Your task to perform on an android device: turn on location history Image 0: 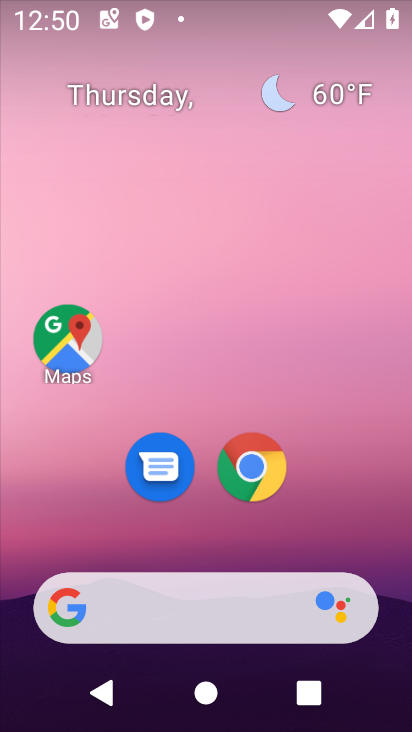
Step 0: drag from (209, 537) to (255, 255)
Your task to perform on an android device: turn on location history Image 1: 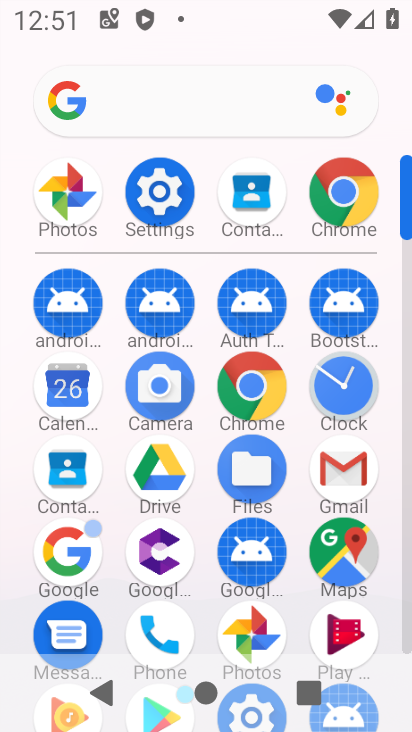
Step 1: click (171, 199)
Your task to perform on an android device: turn on location history Image 2: 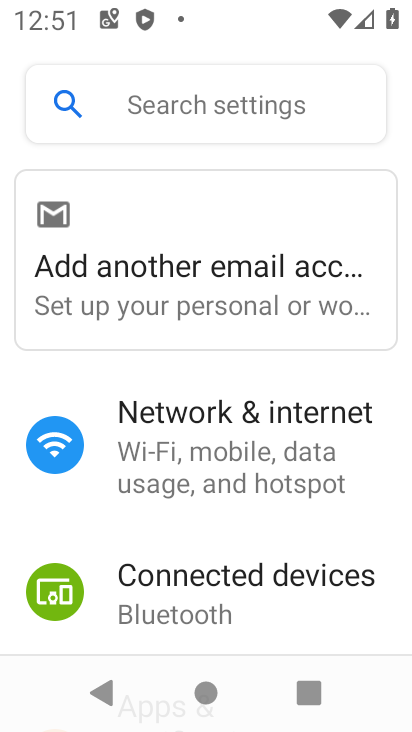
Step 2: drag from (235, 579) to (251, 311)
Your task to perform on an android device: turn on location history Image 3: 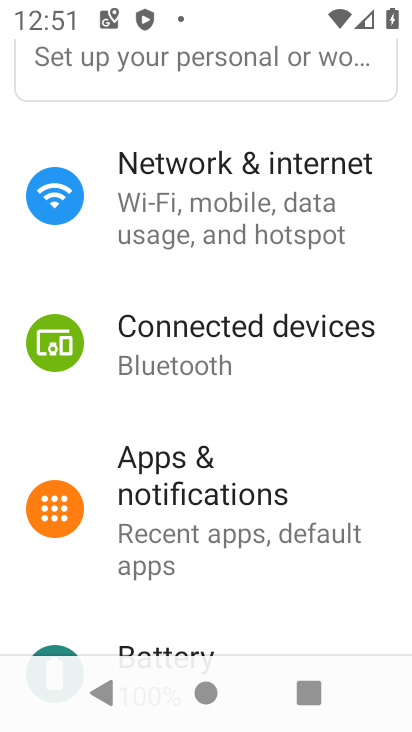
Step 3: drag from (181, 551) to (191, 367)
Your task to perform on an android device: turn on location history Image 4: 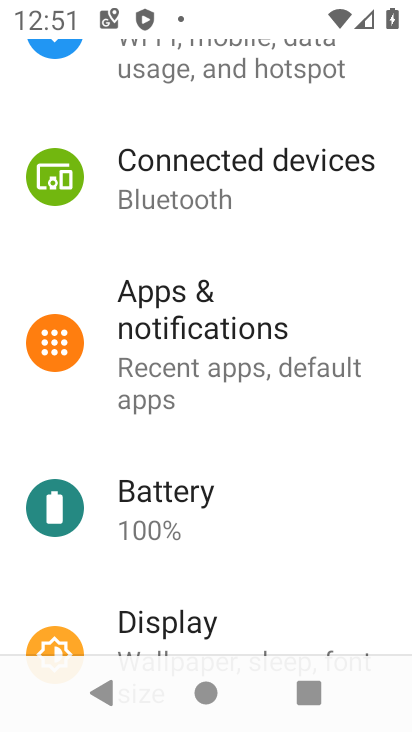
Step 4: drag from (164, 584) to (211, 390)
Your task to perform on an android device: turn on location history Image 5: 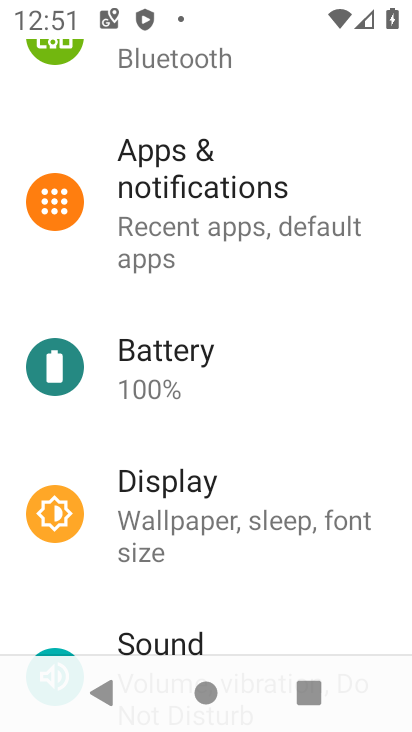
Step 5: drag from (224, 544) to (253, 302)
Your task to perform on an android device: turn on location history Image 6: 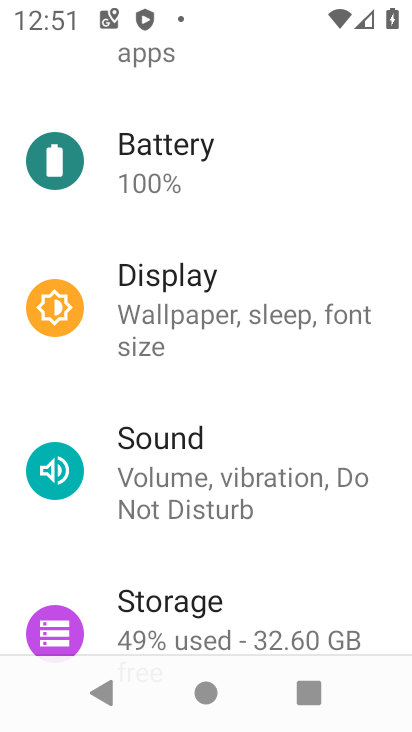
Step 6: drag from (232, 555) to (278, 335)
Your task to perform on an android device: turn on location history Image 7: 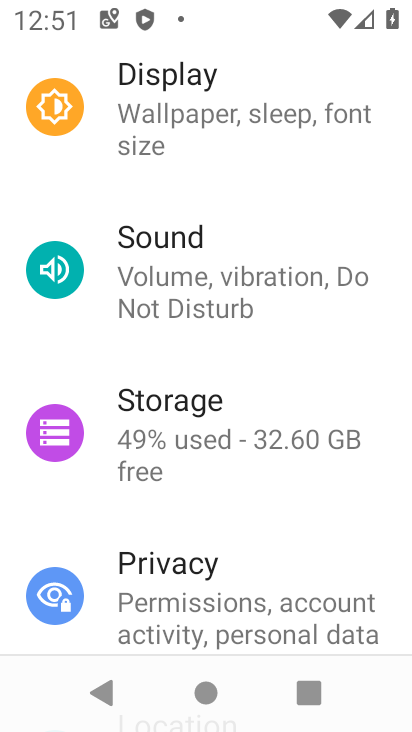
Step 7: drag from (246, 582) to (269, 356)
Your task to perform on an android device: turn on location history Image 8: 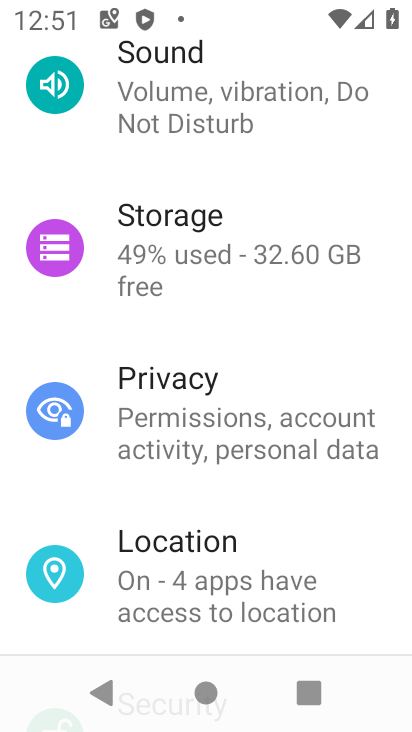
Step 8: click (180, 574)
Your task to perform on an android device: turn on location history Image 9: 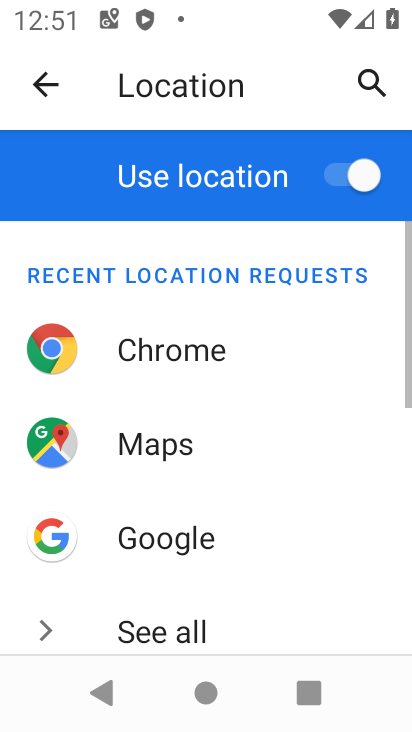
Step 9: drag from (204, 573) to (242, 328)
Your task to perform on an android device: turn on location history Image 10: 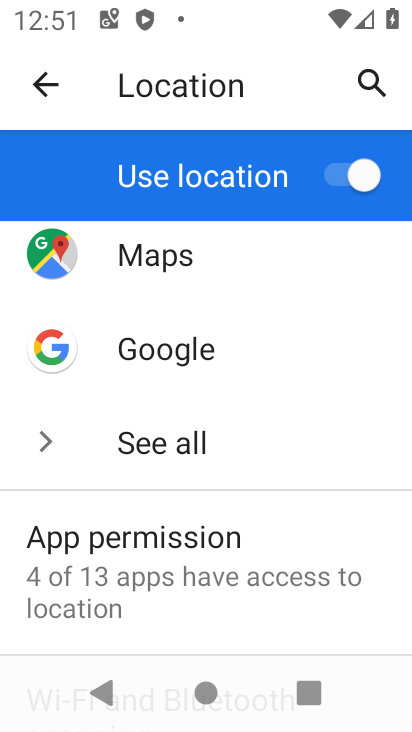
Step 10: drag from (178, 560) to (228, 315)
Your task to perform on an android device: turn on location history Image 11: 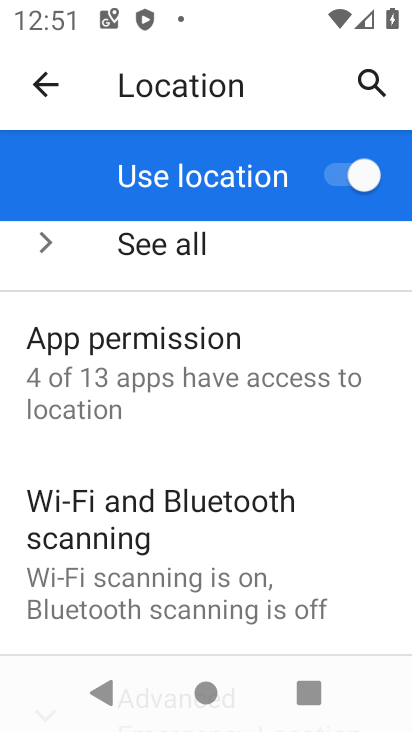
Step 11: drag from (179, 580) to (216, 368)
Your task to perform on an android device: turn on location history Image 12: 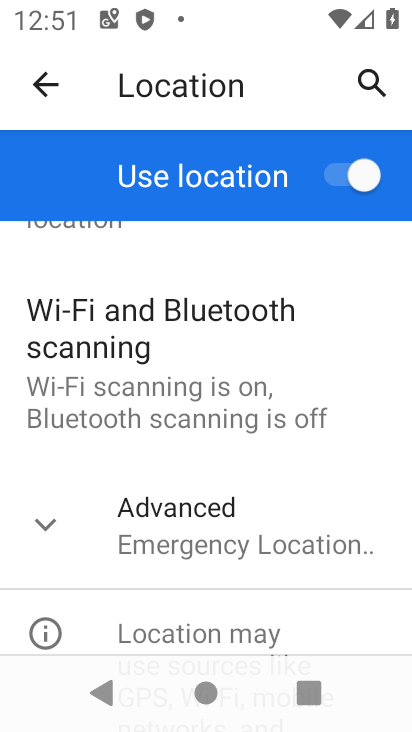
Step 12: drag from (186, 582) to (231, 437)
Your task to perform on an android device: turn on location history Image 13: 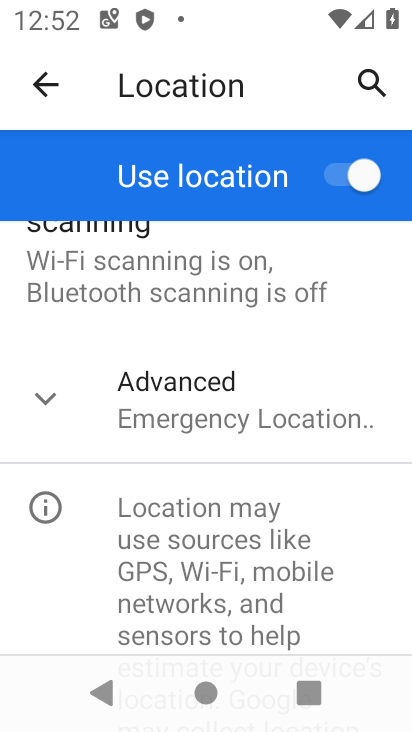
Step 13: click (200, 464)
Your task to perform on an android device: turn on location history Image 14: 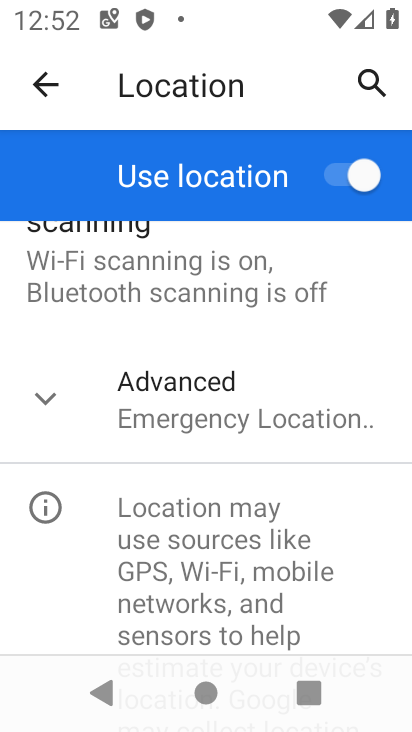
Step 14: click (178, 401)
Your task to perform on an android device: turn on location history Image 15: 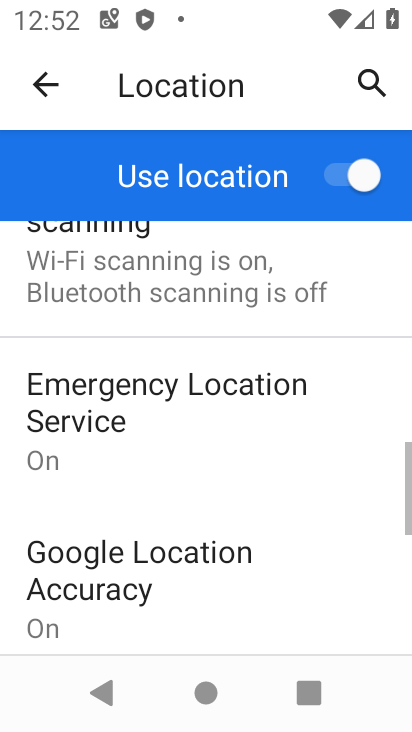
Step 15: drag from (178, 584) to (190, 498)
Your task to perform on an android device: turn on location history Image 16: 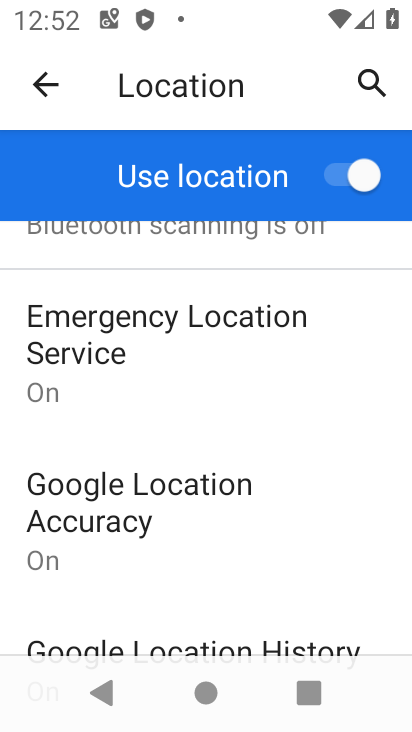
Step 16: drag from (169, 554) to (203, 401)
Your task to perform on an android device: turn on location history Image 17: 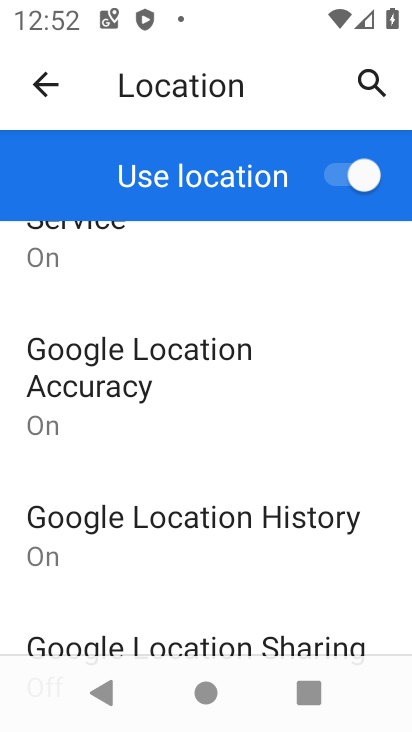
Step 17: click (177, 534)
Your task to perform on an android device: turn on location history Image 18: 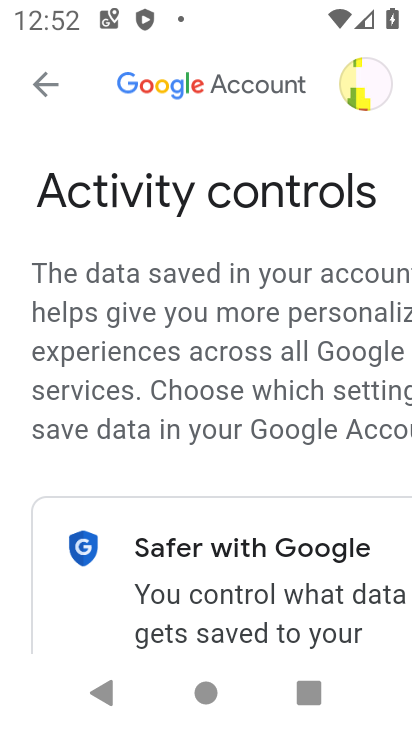
Step 18: drag from (232, 672) to (319, 315)
Your task to perform on an android device: turn on location history Image 19: 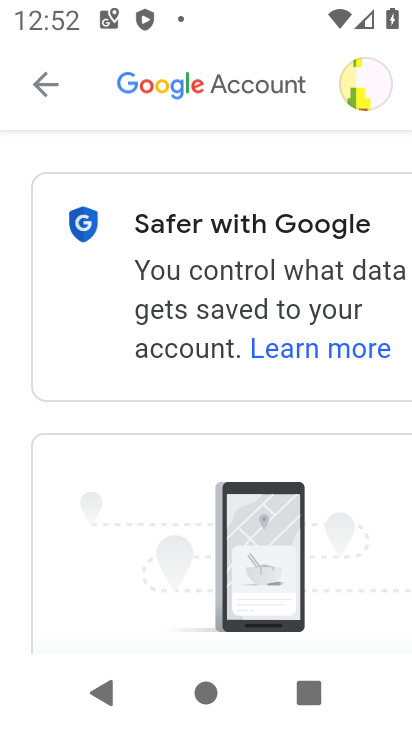
Step 19: drag from (252, 505) to (270, 155)
Your task to perform on an android device: turn on location history Image 20: 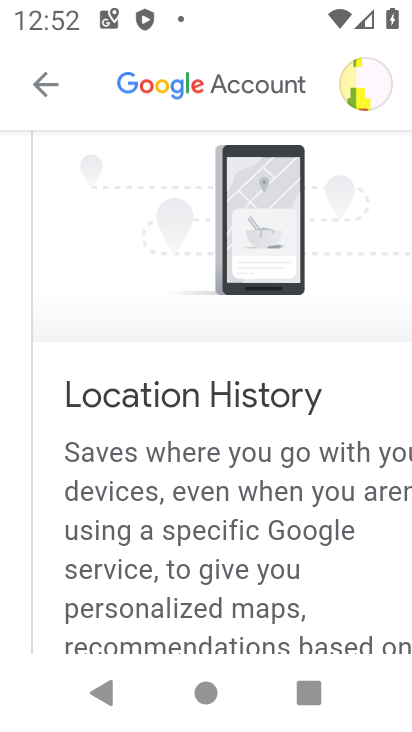
Step 20: drag from (170, 540) to (237, 147)
Your task to perform on an android device: turn on location history Image 21: 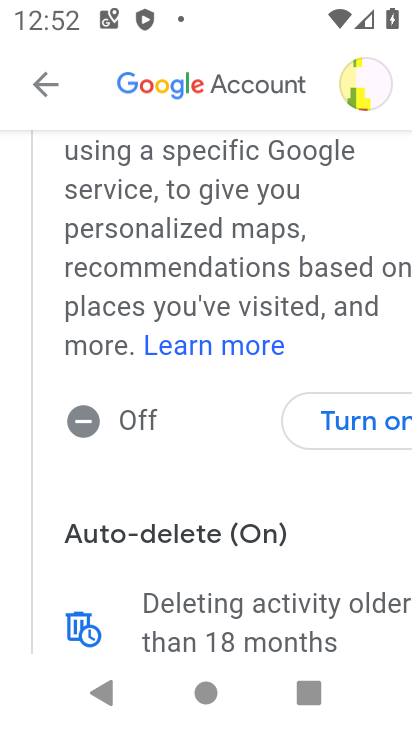
Step 21: click (329, 421)
Your task to perform on an android device: turn on location history Image 22: 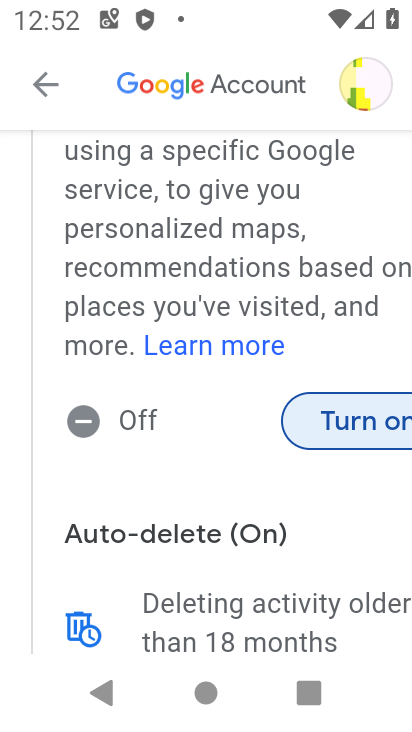
Step 22: click (337, 426)
Your task to perform on an android device: turn on location history Image 23: 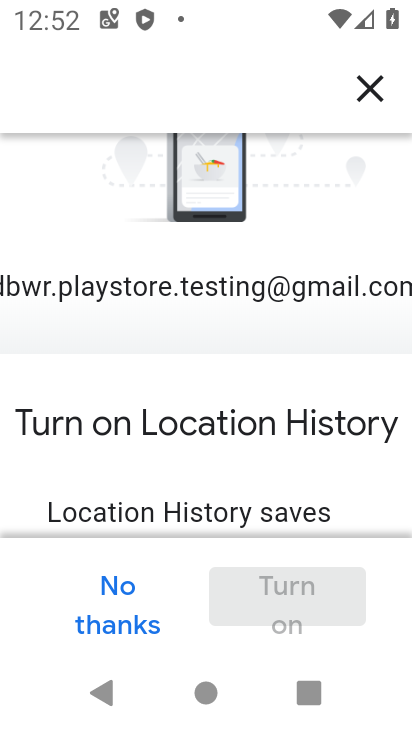
Step 23: drag from (262, 490) to (282, 235)
Your task to perform on an android device: turn on location history Image 24: 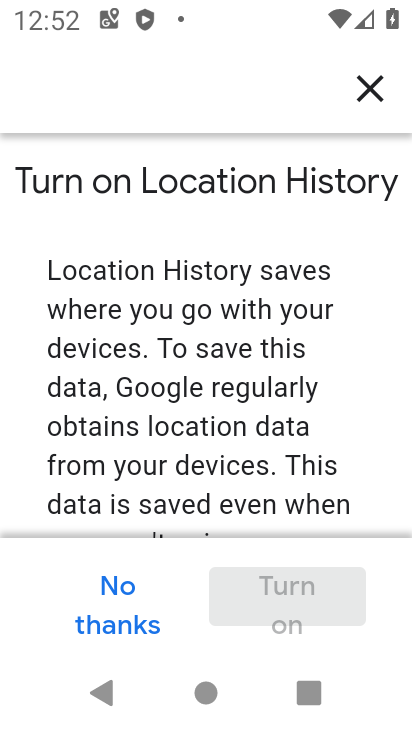
Step 24: drag from (235, 518) to (269, 222)
Your task to perform on an android device: turn on location history Image 25: 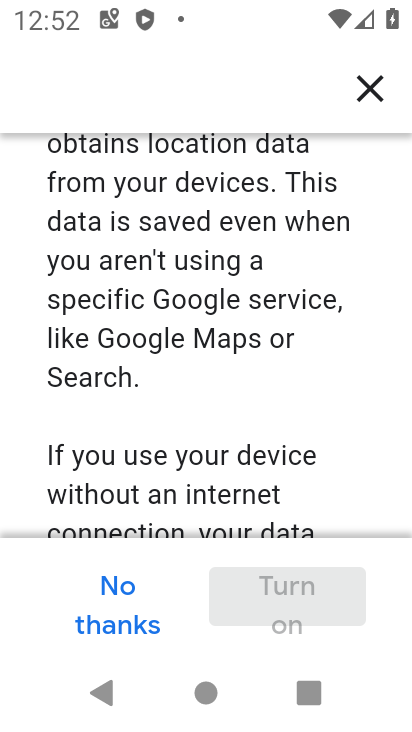
Step 25: drag from (269, 504) to (287, 199)
Your task to perform on an android device: turn on location history Image 26: 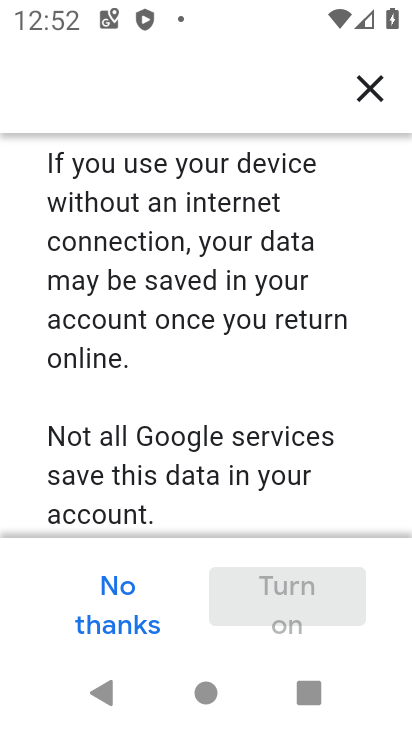
Step 26: drag from (222, 506) to (268, 185)
Your task to perform on an android device: turn on location history Image 27: 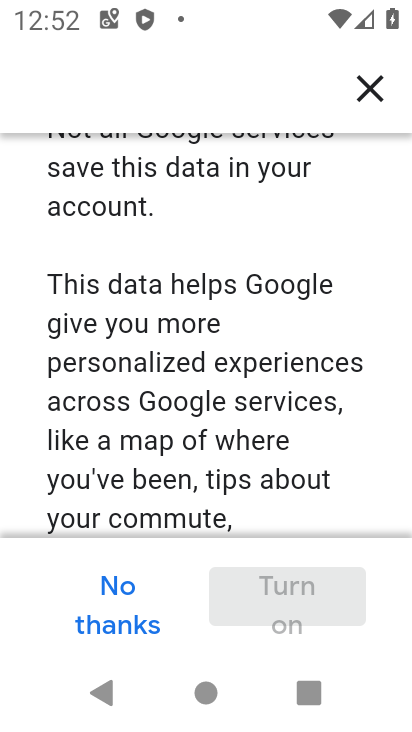
Step 27: drag from (164, 473) to (247, 121)
Your task to perform on an android device: turn on location history Image 28: 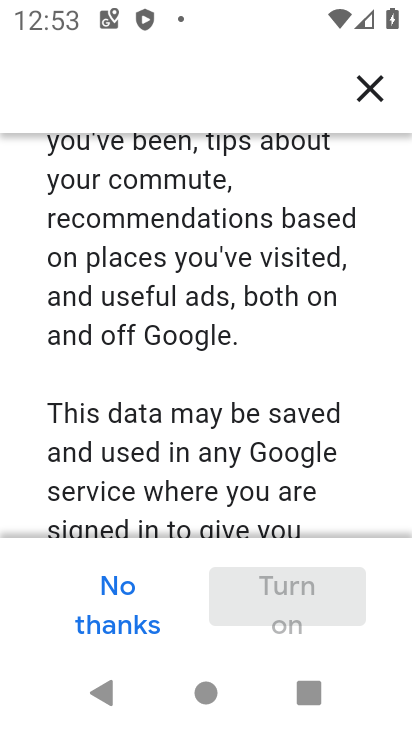
Step 28: drag from (201, 499) to (257, 130)
Your task to perform on an android device: turn on location history Image 29: 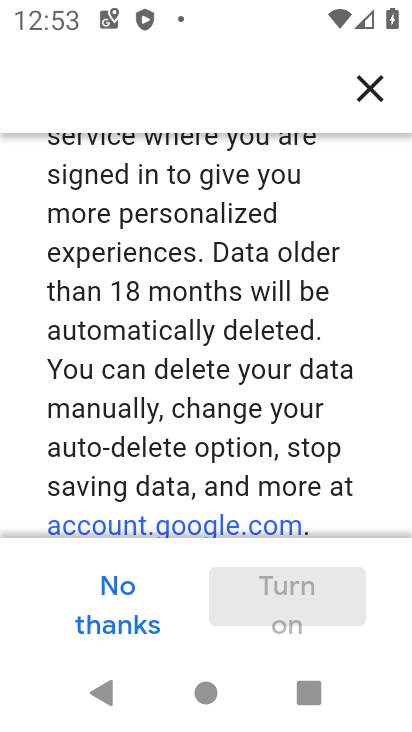
Step 29: drag from (207, 524) to (268, 133)
Your task to perform on an android device: turn on location history Image 30: 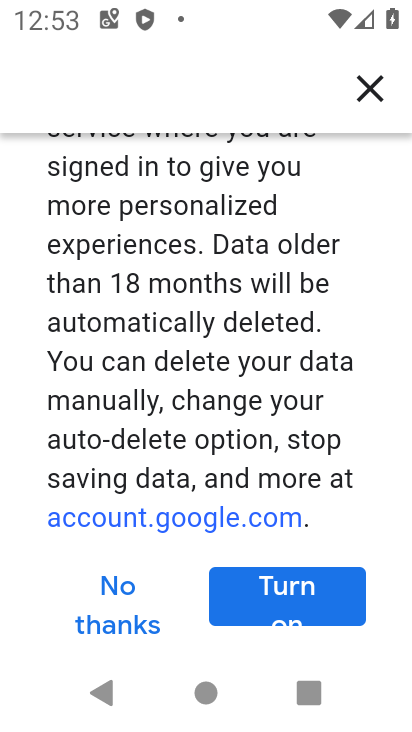
Step 30: click (303, 611)
Your task to perform on an android device: turn on location history Image 31: 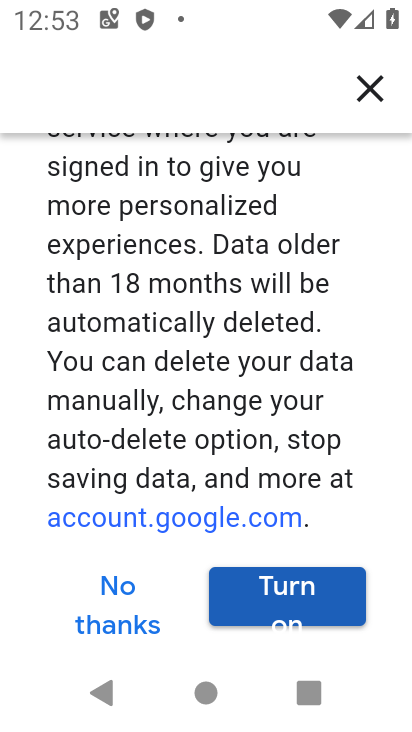
Step 31: click (301, 609)
Your task to perform on an android device: turn on location history Image 32: 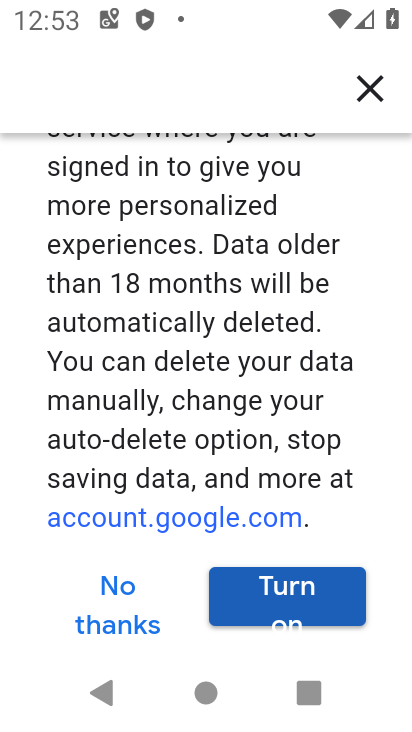
Step 32: click (295, 607)
Your task to perform on an android device: turn on location history Image 33: 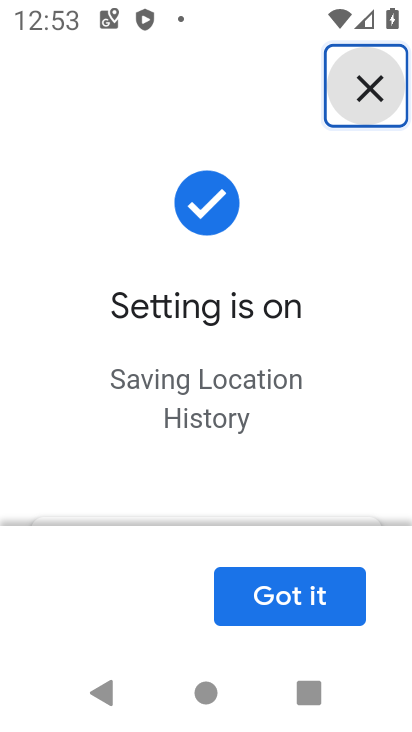
Step 33: click (271, 599)
Your task to perform on an android device: turn on location history Image 34: 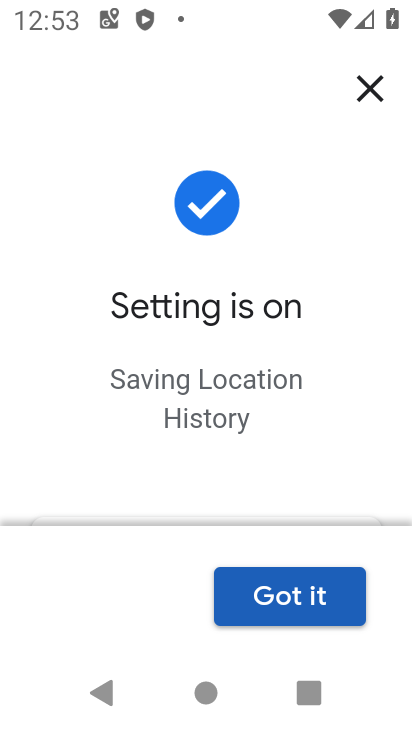
Step 34: click (293, 592)
Your task to perform on an android device: turn on location history Image 35: 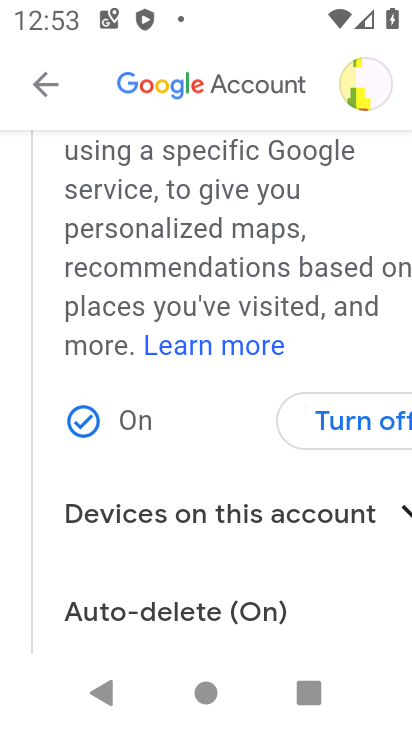
Step 35: task complete